Your task to perform on an android device: change the clock display to digital Image 0: 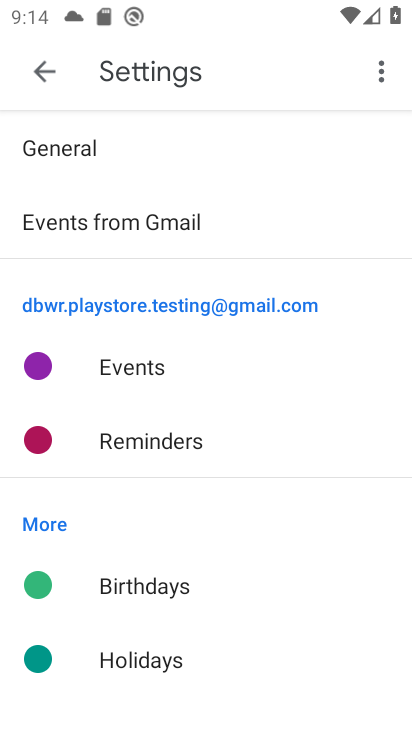
Step 0: press home button
Your task to perform on an android device: change the clock display to digital Image 1: 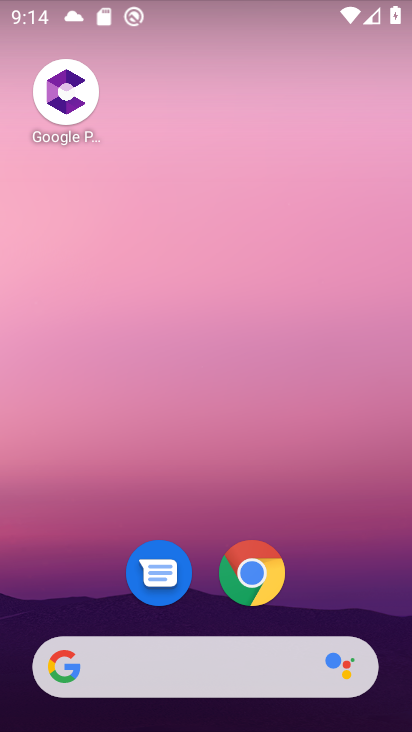
Step 1: drag from (372, 553) to (342, 170)
Your task to perform on an android device: change the clock display to digital Image 2: 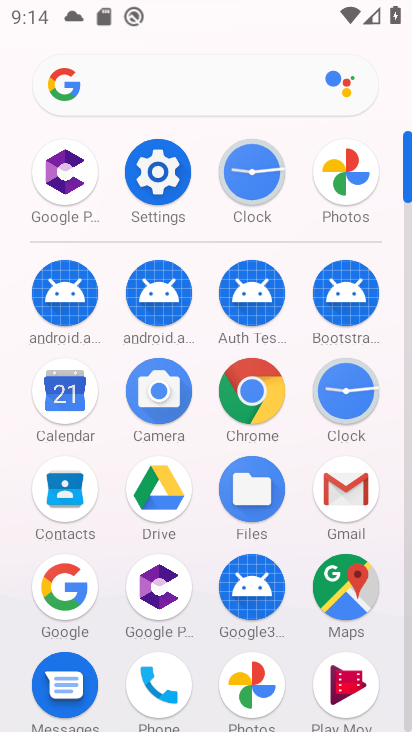
Step 2: click (356, 389)
Your task to perform on an android device: change the clock display to digital Image 3: 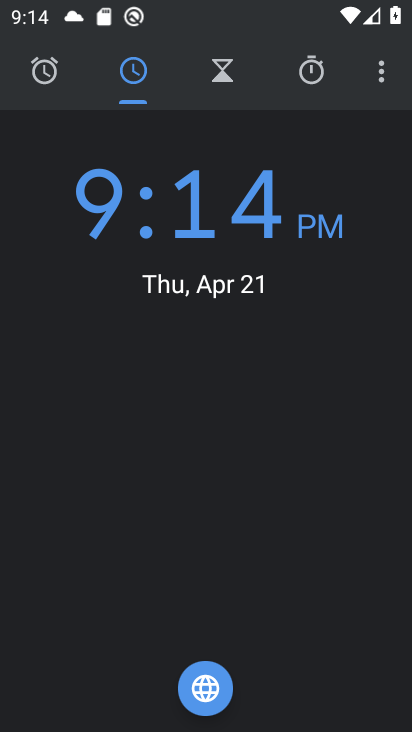
Step 3: click (379, 66)
Your task to perform on an android device: change the clock display to digital Image 4: 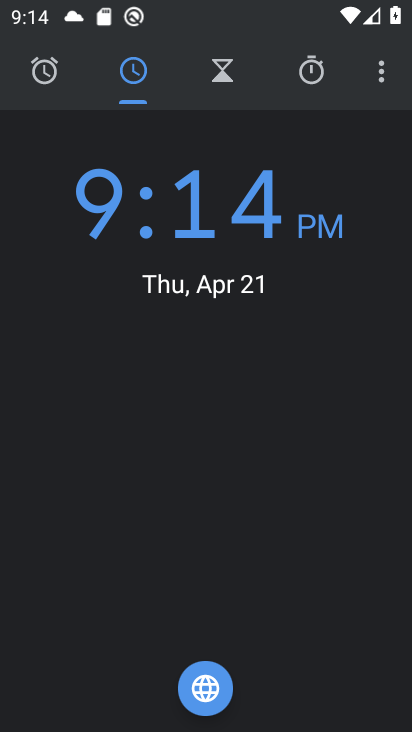
Step 4: click (383, 65)
Your task to perform on an android device: change the clock display to digital Image 5: 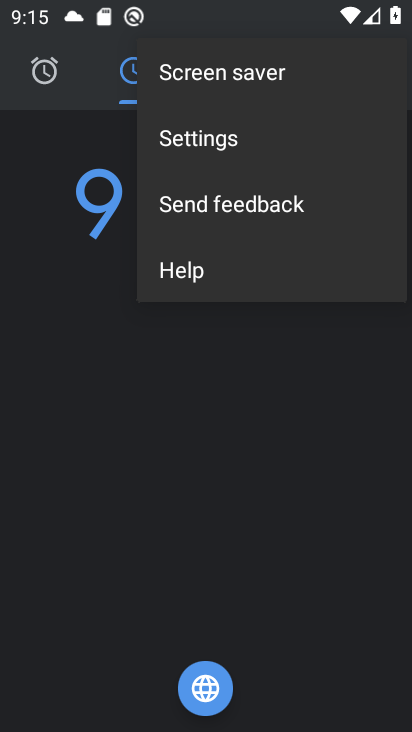
Step 5: click (220, 144)
Your task to perform on an android device: change the clock display to digital Image 6: 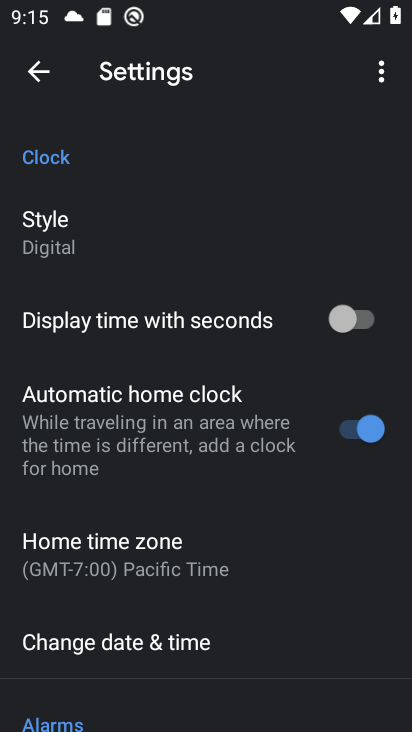
Step 6: drag from (70, 501) to (179, 218)
Your task to perform on an android device: change the clock display to digital Image 7: 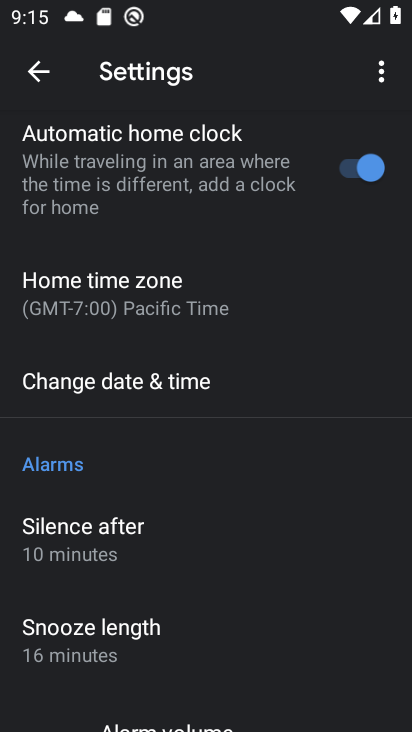
Step 7: drag from (143, 250) to (142, 525)
Your task to perform on an android device: change the clock display to digital Image 8: 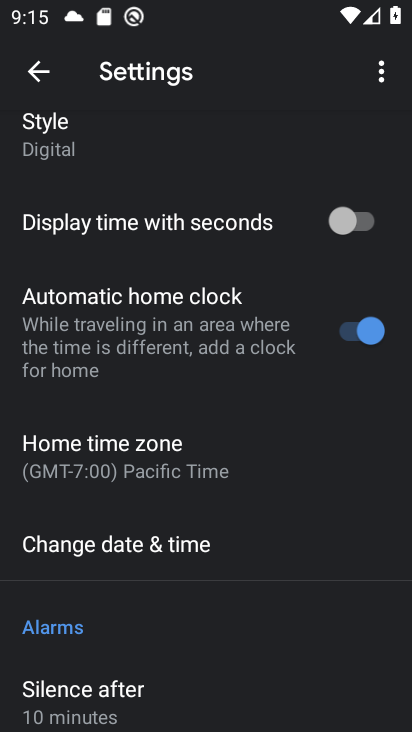
Step 8: click (137, 144)
Your task to perform on an android device: change the clock display to digital Image 9: 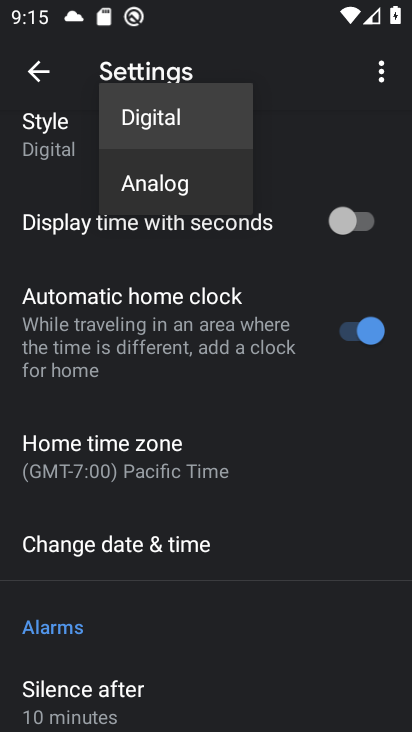
Step 9: click (159, 114)
Your task to perform on an android device: change the clock display to digital Image 10: 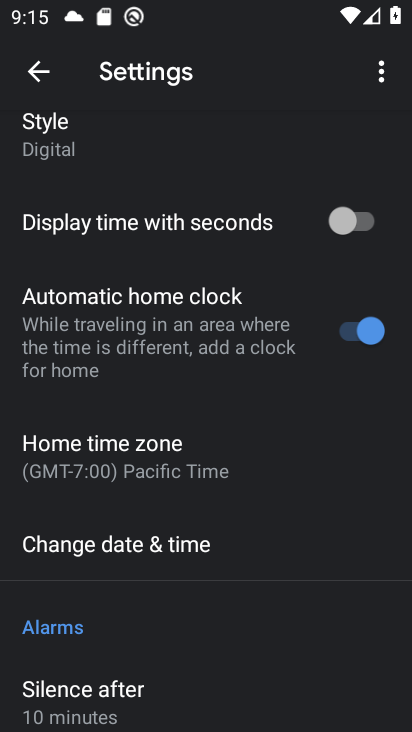
Step 10: task complete